Your task to perform on an android device: When is my next appointment? Image 0: 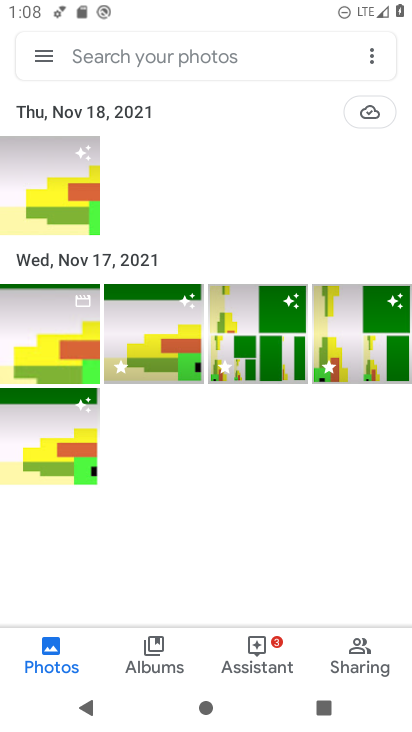
Step 0: press home button
Your task to perform on an android device: When is my next appointment? Image 1: 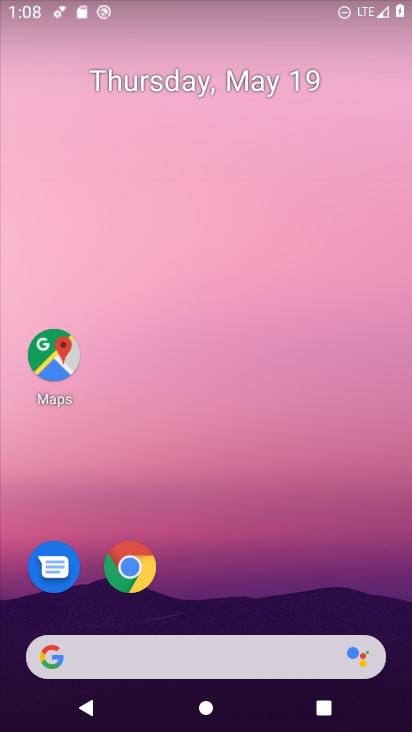
Step 1: drag from (214, 425) to (193, 26)
Your task to perform on an android device: When is my next appointment? Image 2: 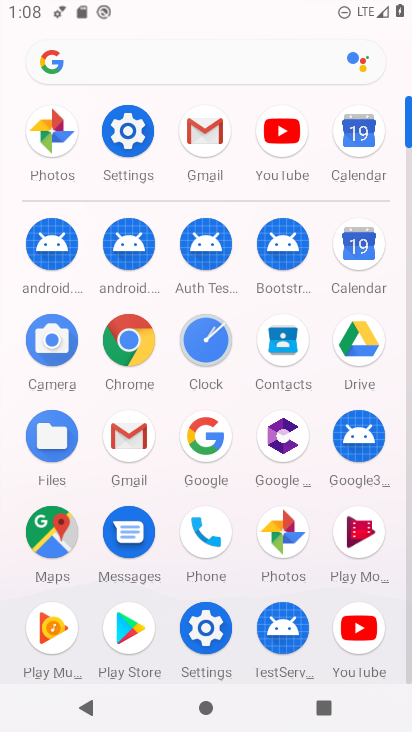
Step 2: click (361, 133)
Your task to perform on an android device: When is my next appointment? Image 3: 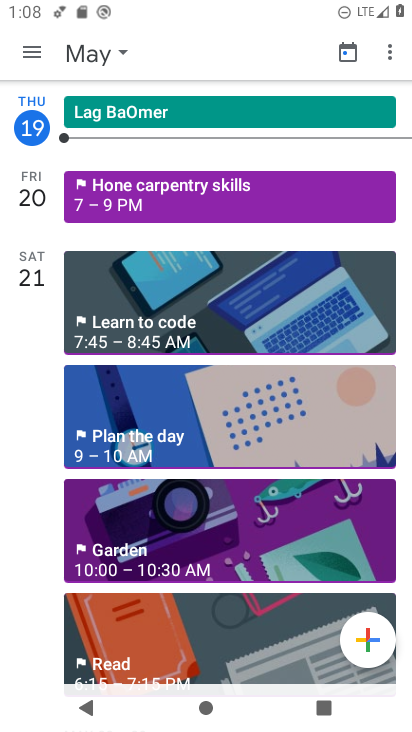
Step 3: task complete